Your task to perform on an android device: turn off data saver in the chrome app Image 0: 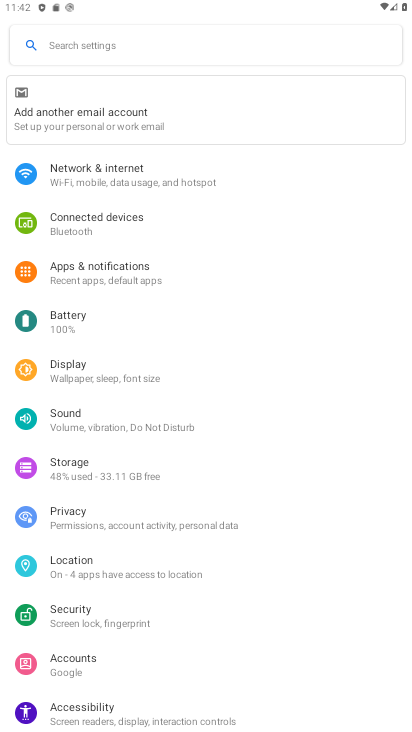
Step 0: press home button
Your task to perform on an android device: turn off data saver in the chrome app Image 1: 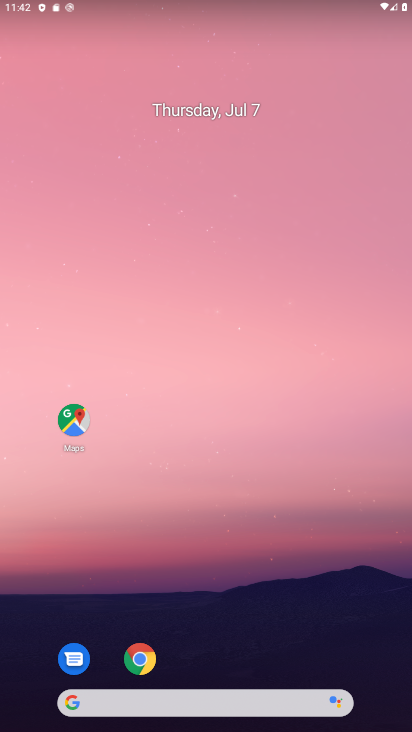
Step 1: click (142, 659)
Your task to perform on an android device: turn off data saver in the chrome app Image 2: 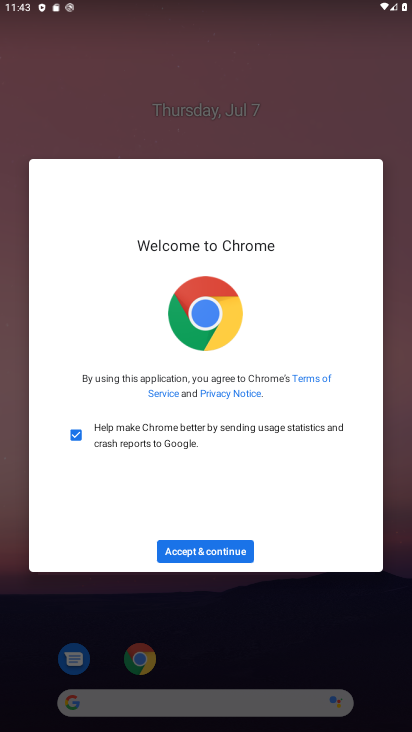
Step 2: click (181, 550)
Your task to perform on an android device: turn off data saver in the chrome app Image 3: 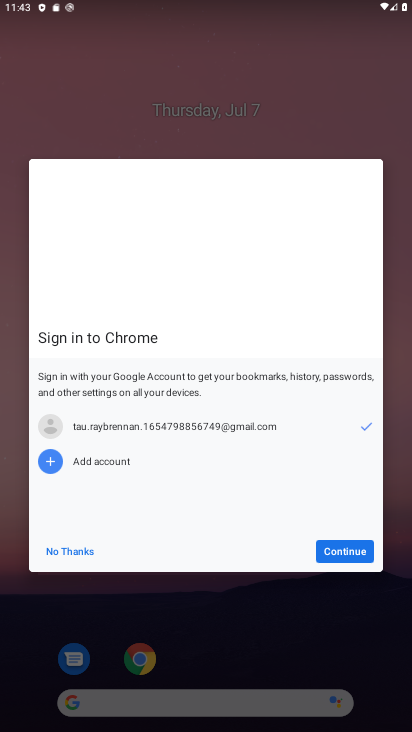
Step 3: click (333, 547)
Your task to perform on an android device: turn off data saver in the chrome app Image 4: 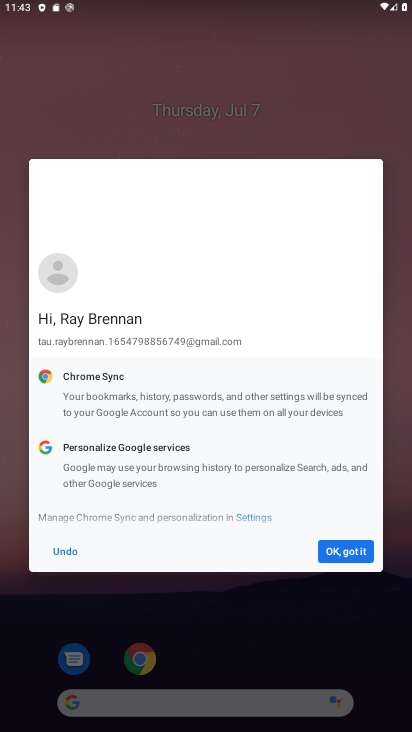
Step 4: click (333, 547)
Your task to perform on an android device: turn off data saver in the chrome app Image 5: 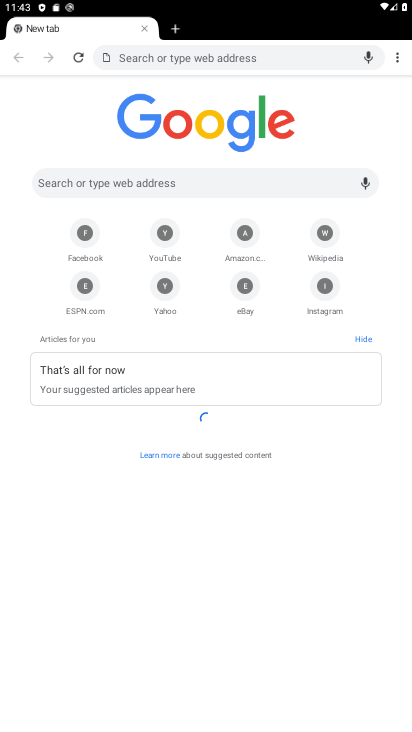
Step 5: click (400, 53)
Your task to perform on an android device: turn off data saver in the chrome app Image 6: 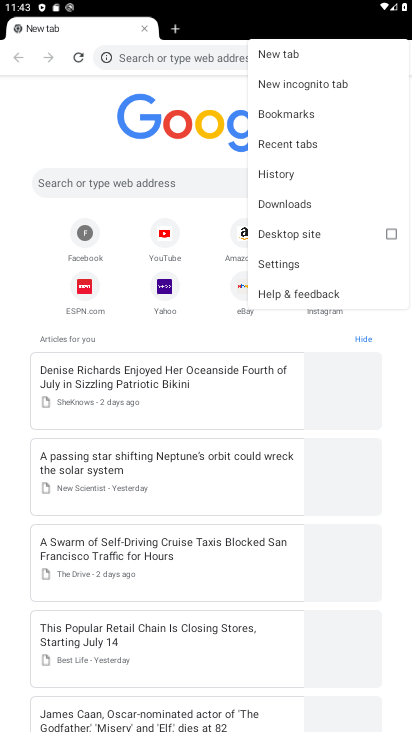
Step 6: click (296, 263)
Your task to perform on an android device: turn off data saver in the chrome app Image 7: 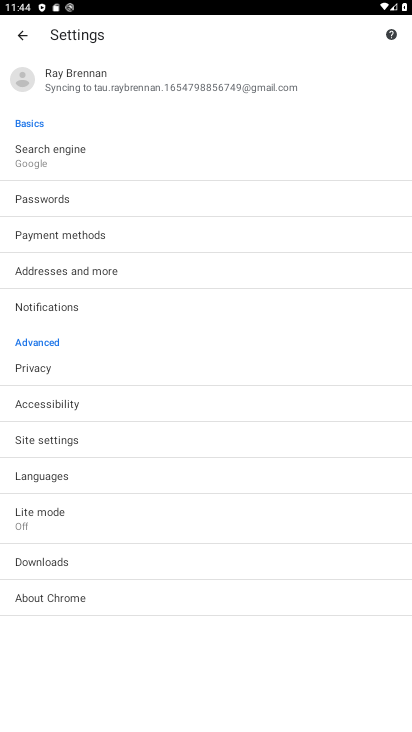
Step 7: click (45, 511)
Your task to perform on an android device: turn off data saver in the chrome app Image 8: 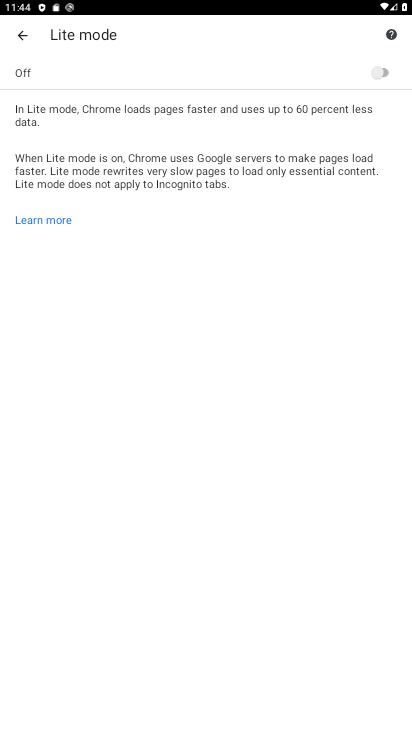
Step 8: task complete